Your task to perform on an android device: check out phone information Image 0: 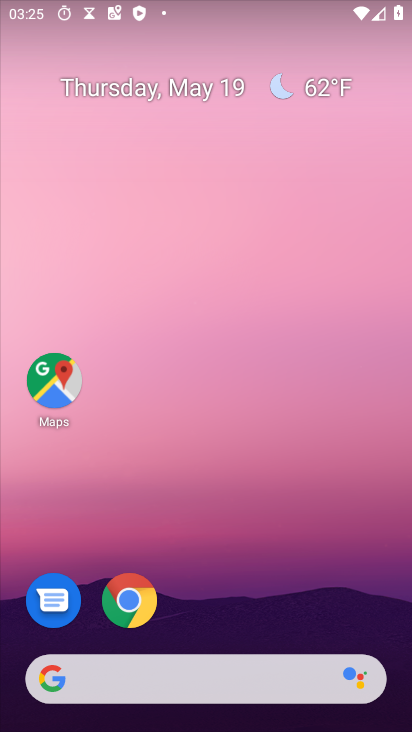
Step 0: press home button
Your task to perform on an android device: check out phone information Image 1: 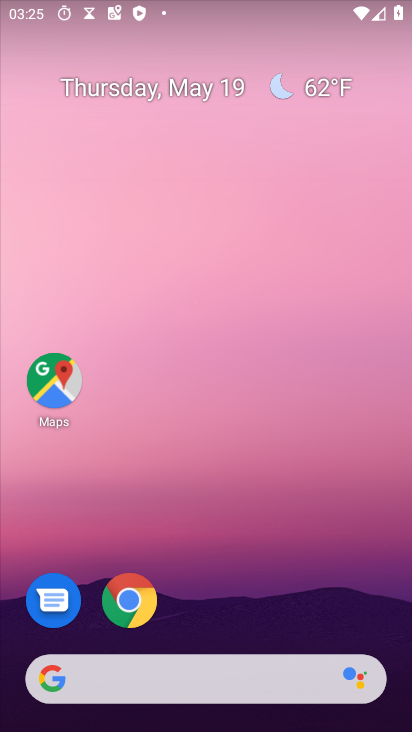
Step 1: drag from (15, 537) to (240, 201)
Your task to perform on an android device: check out phone information Image 2: 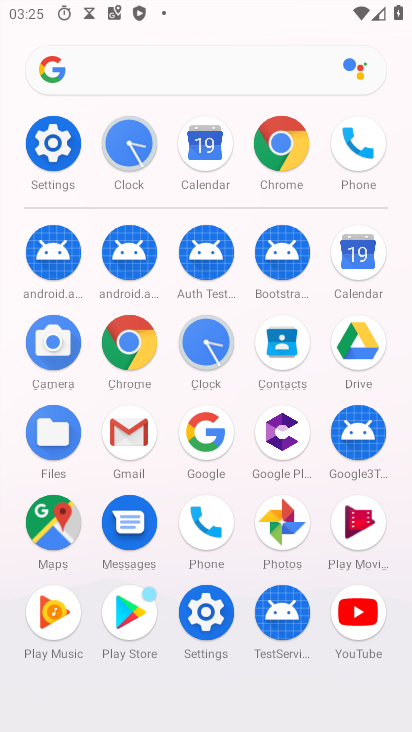
Step 2: click (202, 513)
Your task to perform on an android device: check out phone information Image 3: 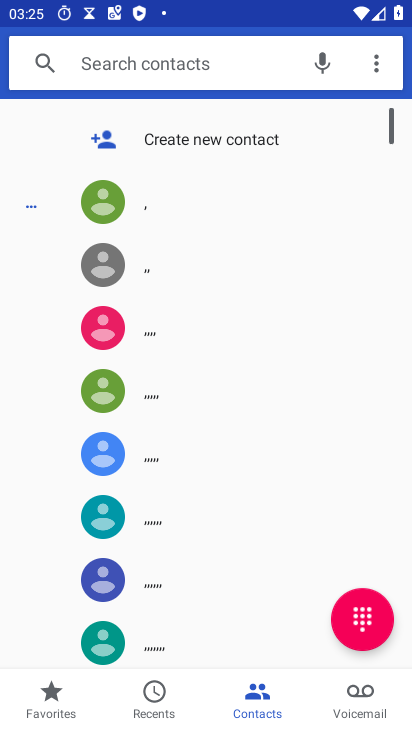
Step 3: task complete